Your task to perform on an android device: turn on javascript in the chrome app Image 0: 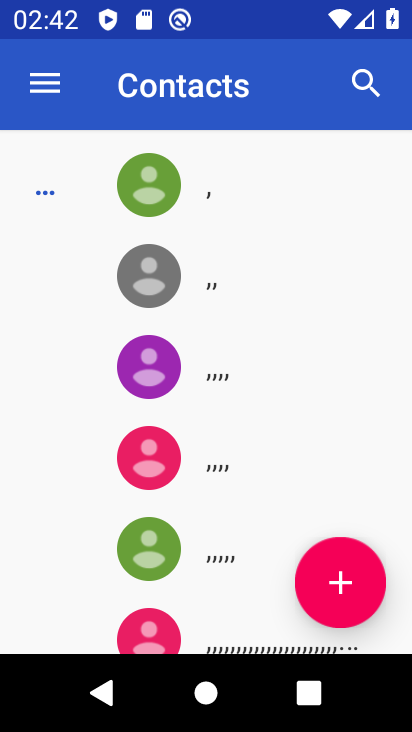
Step 0: press home button
Your task to perform on an android device: turn on javascript in the chrome app Image 1: 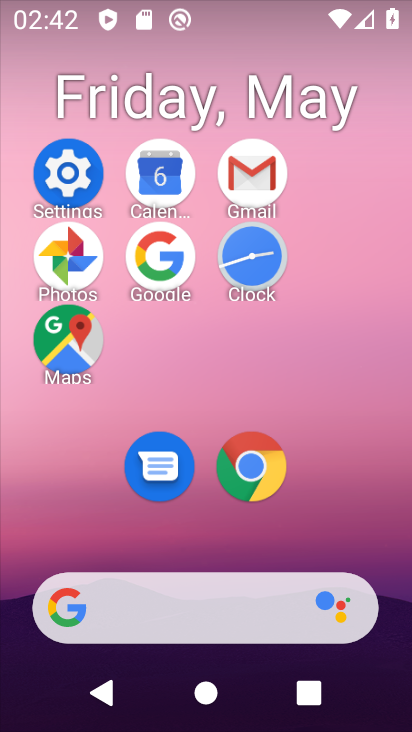
Step 1: click (245, 477)
Your task to perform on an android device: turn on javascript in the chrome app Image 2: 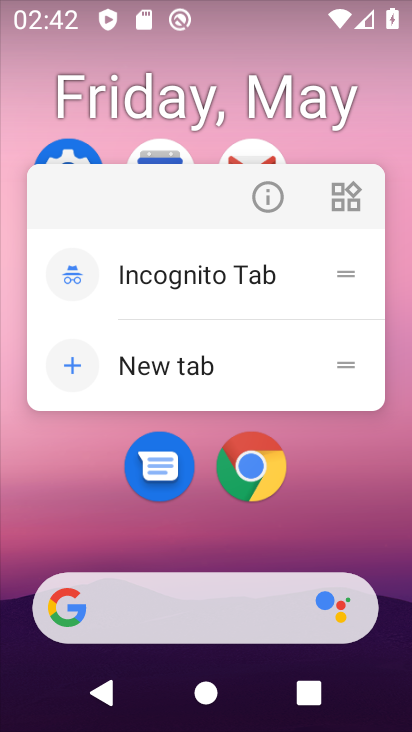
Step 2: click (241, 472)
Your task to perform on an android device: turn on javascript in the chrome app Image 3: 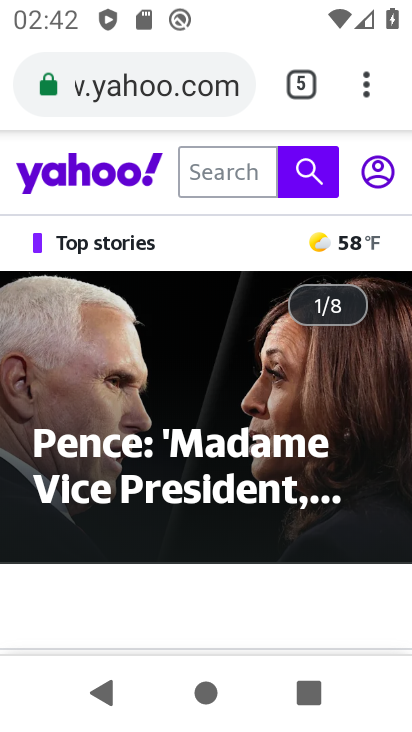
Step 3: click (362, 89)
Your task to perform on an android device: turn on javascript in the chrome app Image 4: 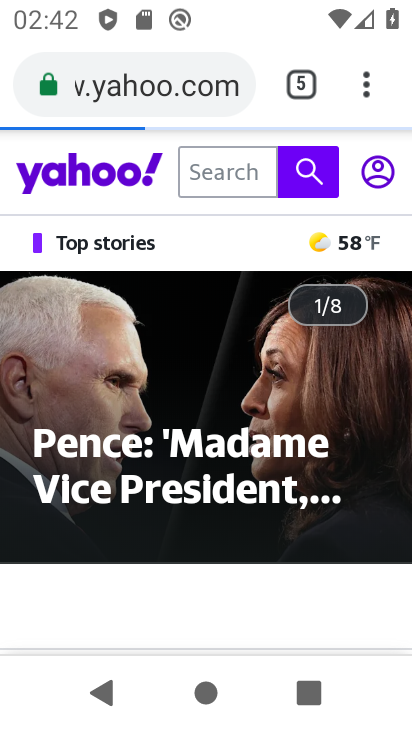
Step 4: click (362, 89)
Your task to perform on an android device: turn on javascript in the chrome app Image 5: 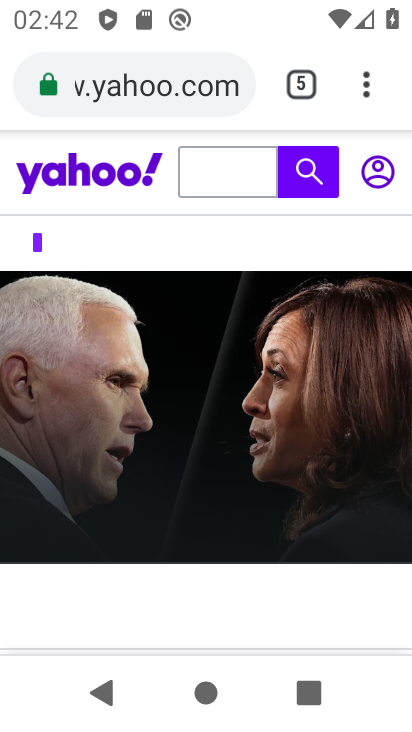
Step 5: click (362, 89)
Your task to perform on an android device: turn on javascript in the chrome app Image 6: 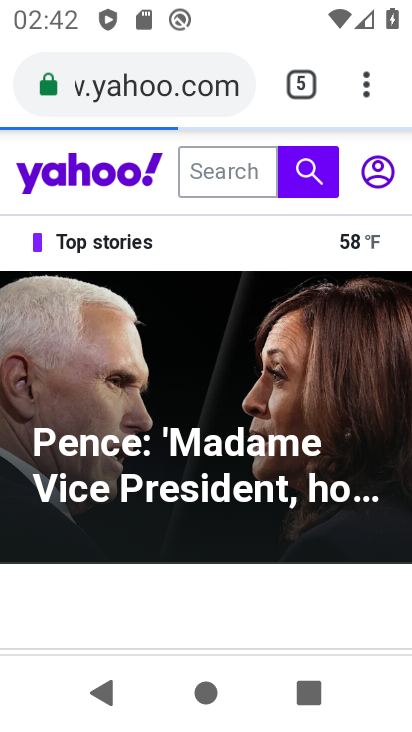
Step 6: click (362, 89)
Your task to perform on an android device: turn on javascript in the chrome app Image 7: 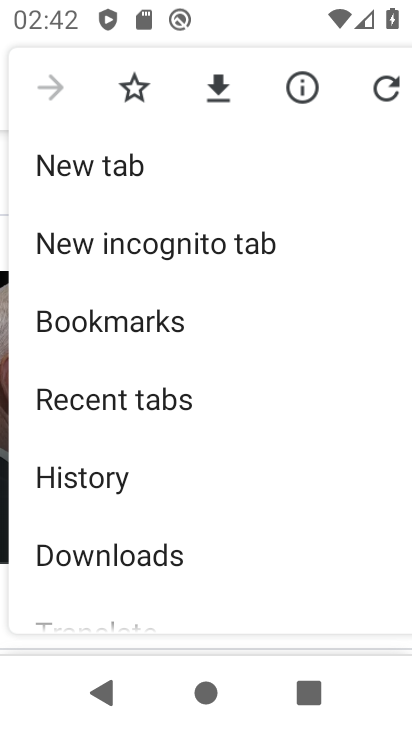
Step 7: drag from (234, 491) to (190, 185)
Your task to perform on an android device: turn on javascript in the chrome app Image 8: 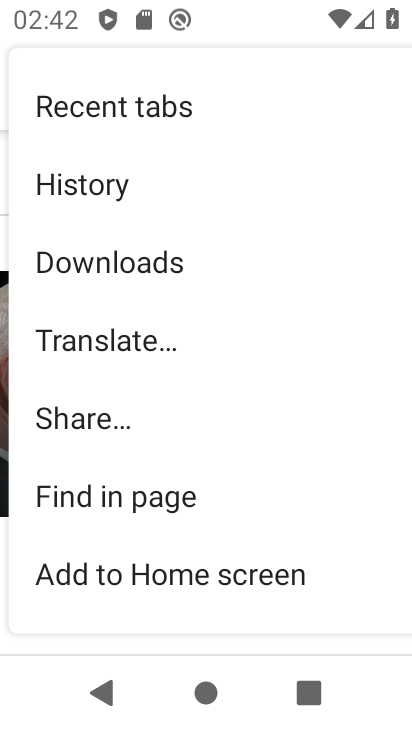
Step 8: drag from (226, 489) to (177, 219)
Your task to perform on an android device: turn on javascript in the chrome app Image 9: 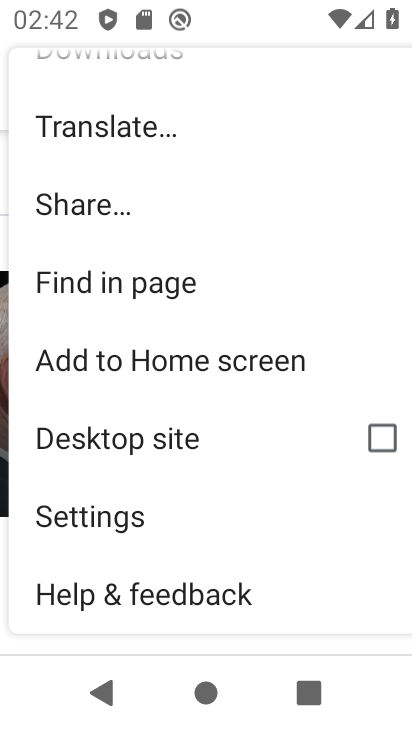
Step 9: click (161, 508)
Your task to perform on an android device: turn on javascript in the chrome app Image 10: 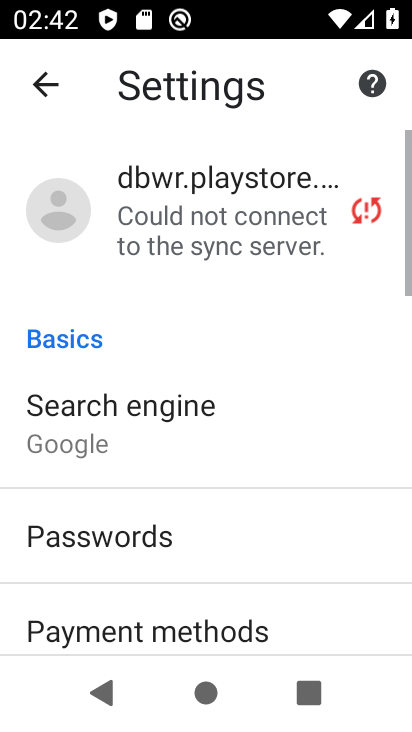
Step 10: drag from (152, 480) to (143, 157)
Your task to perform on an android device: turn on javascript in the chrome app Image 11: 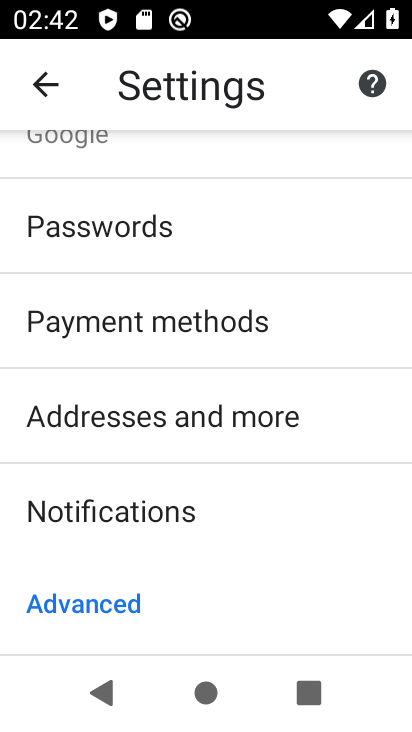
Step 11: drag from (180, 556) to (154, 237)
Your task to perform on an android device: turn on javascript in the chrome app Image 12: 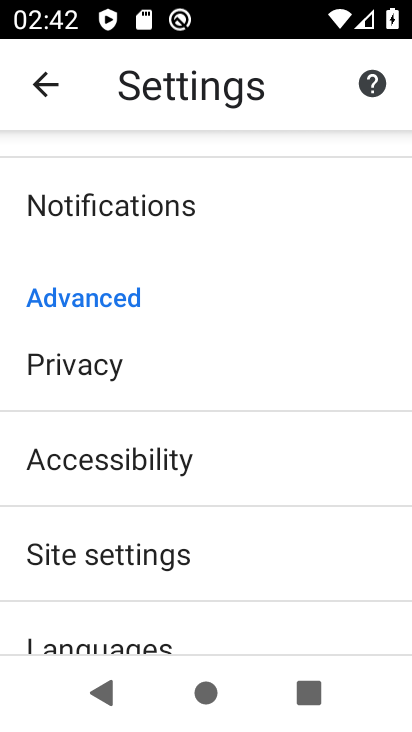
Step 12: click (200, 561)
Your task to perform on an android device: turn on javascript in the chrome app Image 13: 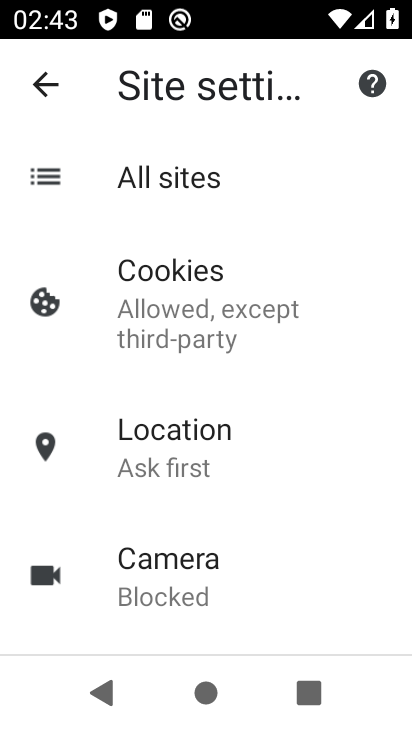
Step 13: drag from (276, 586) to (278, 245)
Your task to perform on an android device: turn on javascript in the chrome app Image 14: 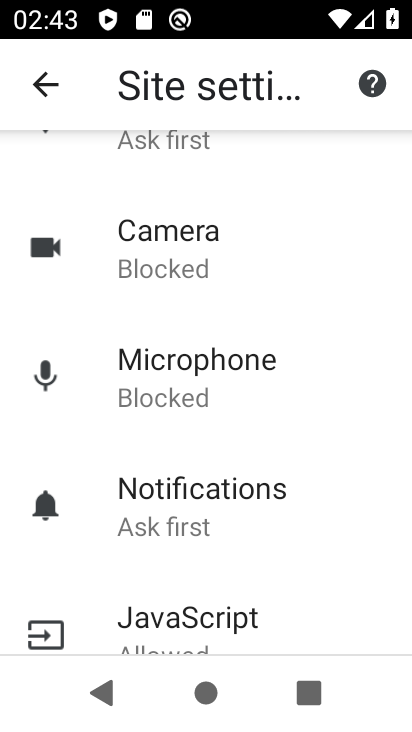
Step 14: click (236, 615)
Your task to perform on an android device: turn on javascript in the chrome app Image 15: 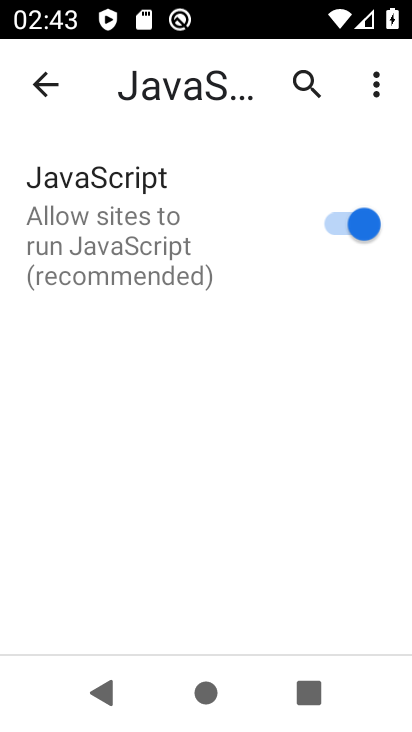
Step 15: task complete